Your task to perform on an android device: Turn off the flashlight Image 0: 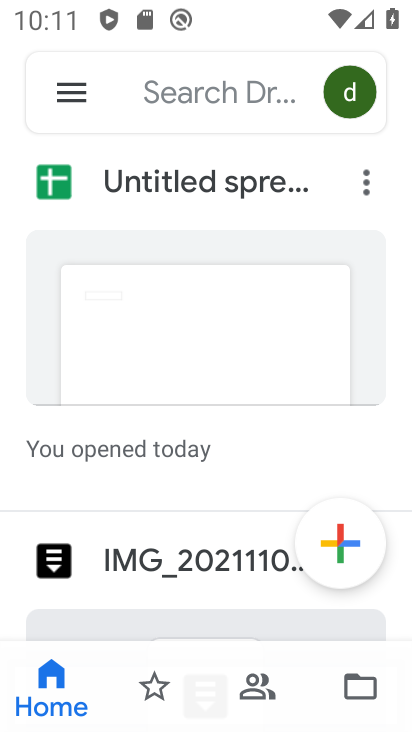
Step 0: press home button
Your task to perform on an android device: Turn off the flashlight Image 1: 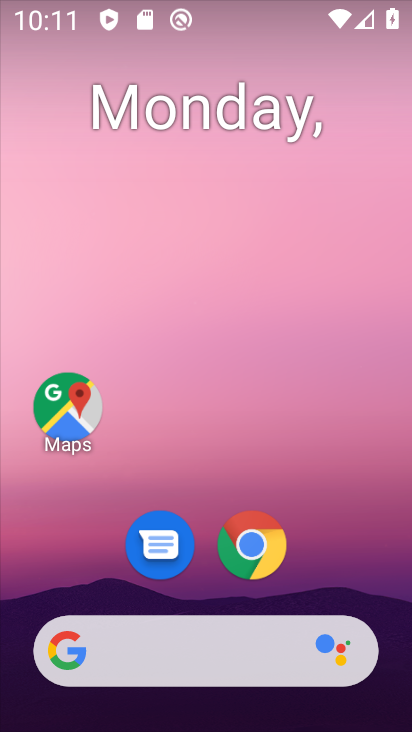
Step 1: drag from (330, 575) to (330, 156)
Your task to perform on an android device: Turn off the flashlight Image 2: 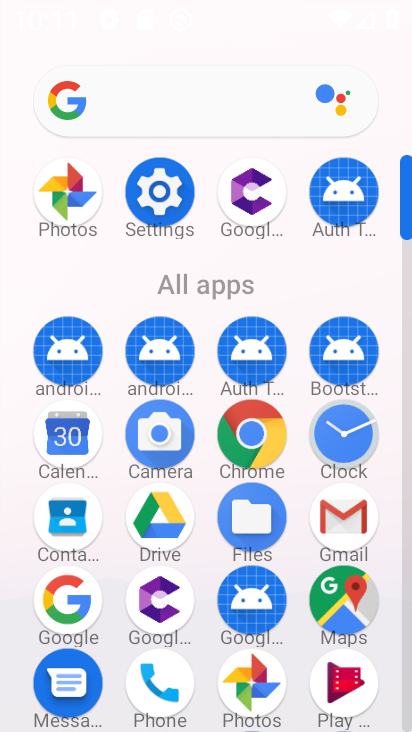
Step 2: click (155, 218)
Your task to perform on an android device: Turn off the flashlight Image 3: 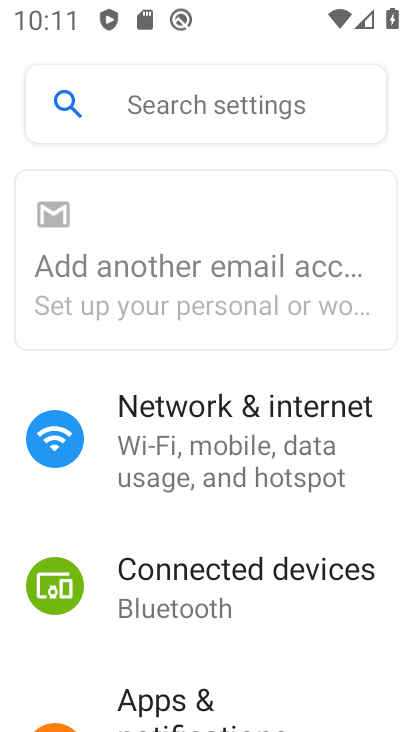
Step 3: click (243, 104)
Your task to perform on an android device: Turn off the flashlight Image 4: 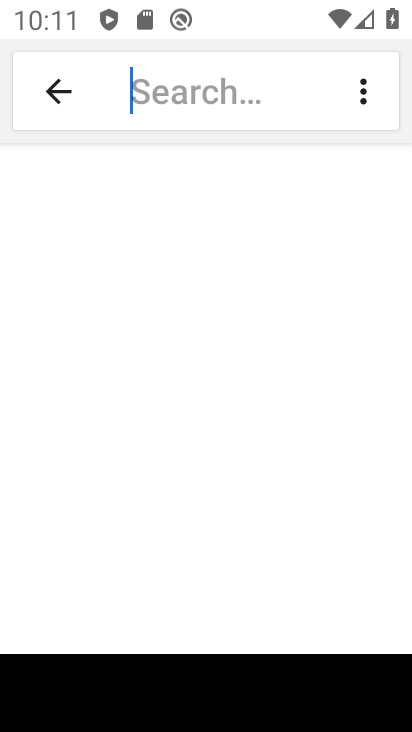
Step 4: type "flashlight"
Your task to perform on an android device: Turn off the flashlight Image 5: 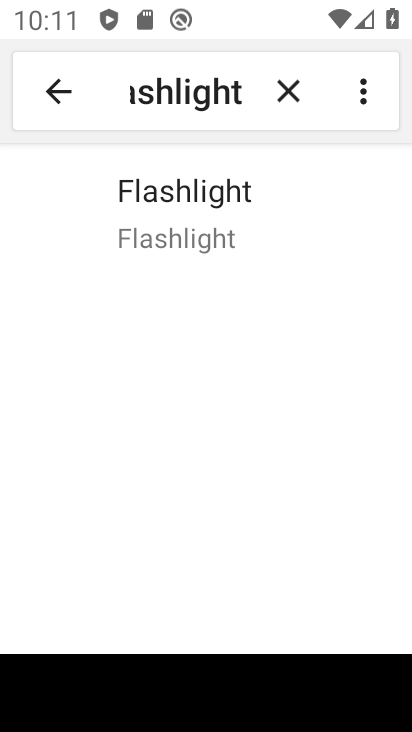
Step 5: task complete